Your task to perform on an android device: toggle wifi Image 0: 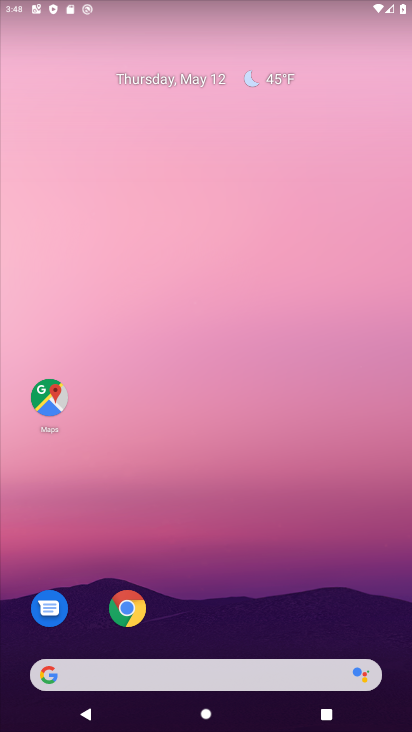
Step 0: drag from (126, 12) to (189, 691)
Your task to perform on an android device: toggle wifi Image 1: 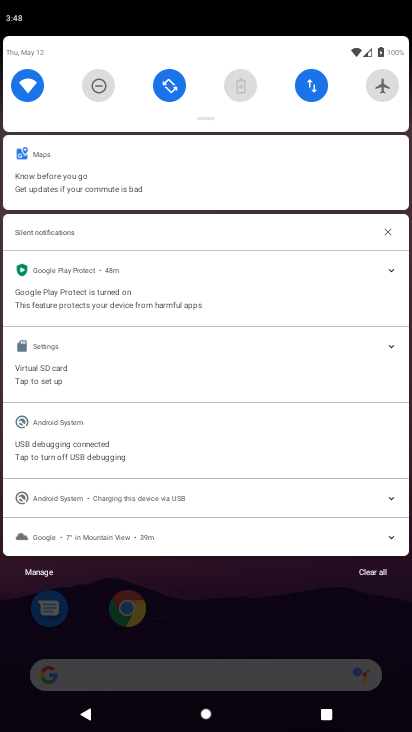
Step 1: click (27, 90)
Your task to perform on an android device: toggle wifi Image 2: 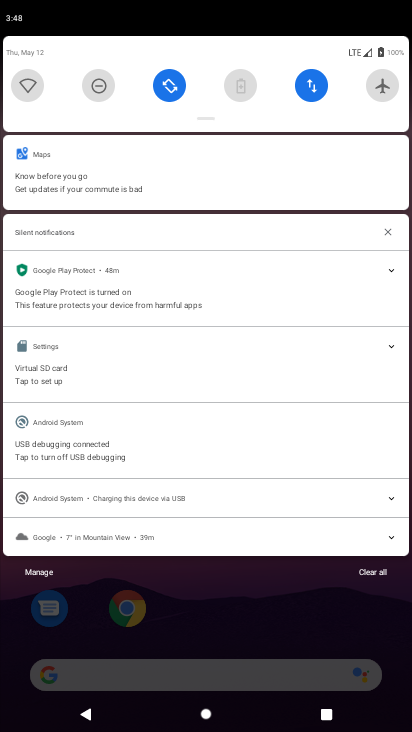
Step 2: click (27, 90)
Your task to perform on an android device: toggle wifi Image 3: 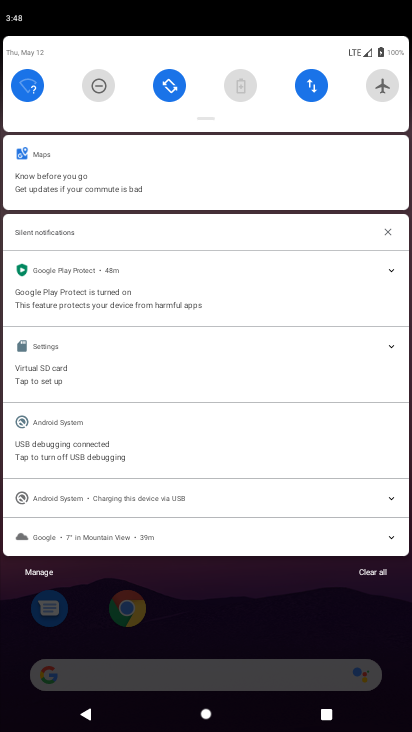
Step 3: task complete